Your task to perform on an android device: Open Youtube and go to "Your channel" Image 0: 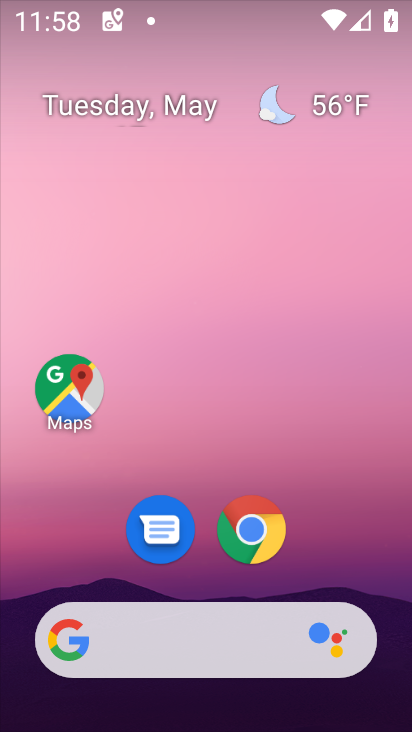
Step 0: click (376, 342)
Your task to perform on an android device: Open Youtube and go to "Your channel" Image 1: 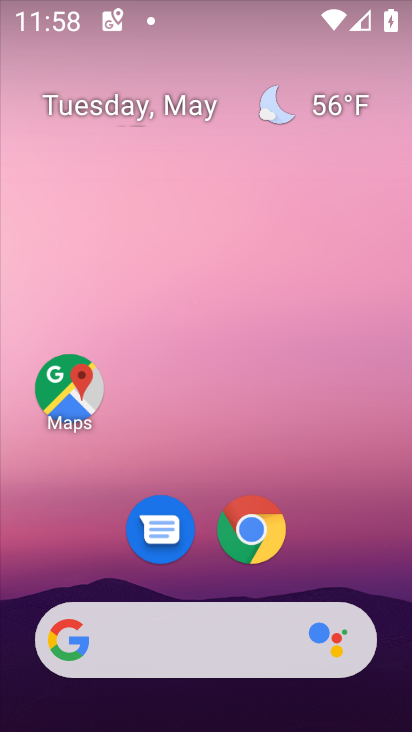
Step 1: drag from (385, 633) to (336, 223)
Your task to perform on an android device: Open Youtube and go to "Your channel" Image 2: 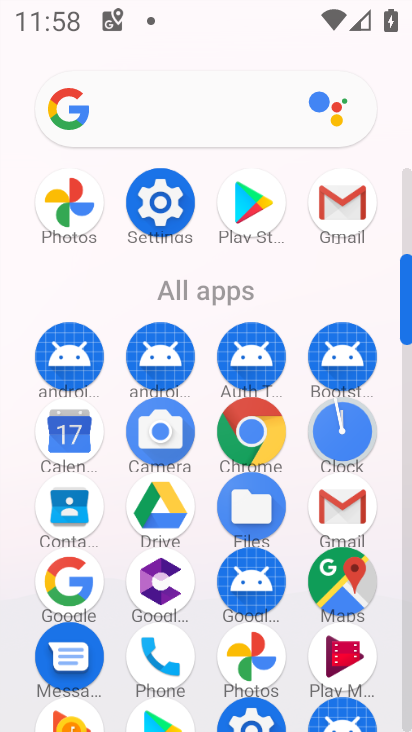
Step 2: drag from (407, 266) to (393, 75)
Your task to perform on an android device: Open Youtube and go to "Your channel" Image 3: 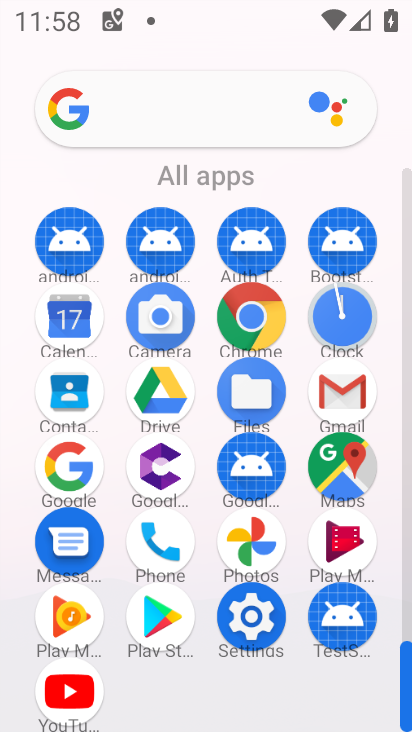
Step 3: click (55, 691)
Your task to perform on an android device: Open Youtube and go to "Your channel" Image 4: 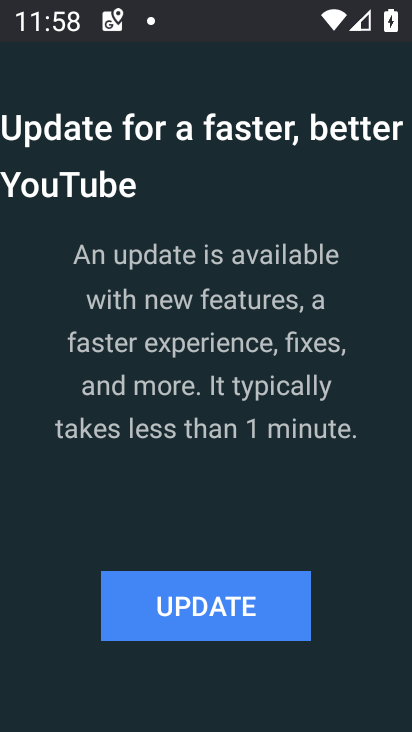
Step 4: click (134, 653)
Your task to perform on an android device: Open Youtube and go to "Your channel" Image 5: 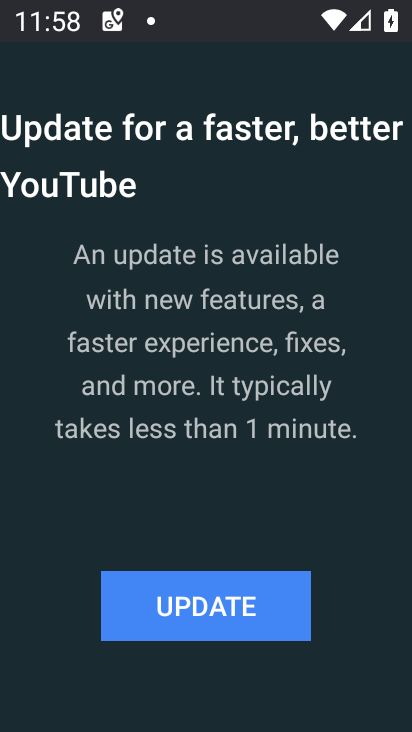
Step 5: click (158, 617)
Your task to perform on an android device: Open Youtube and go to "Your channel" Image 6: 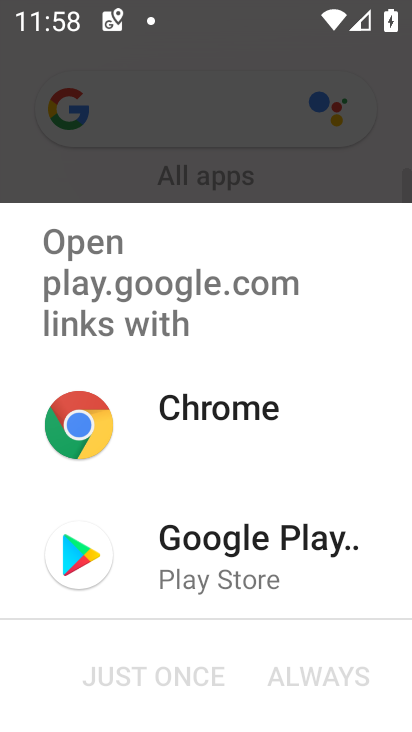
Step 6: click (189, 529)
Your task to perform on an android device: Open Youtube and go to "Your channel" Image 7: 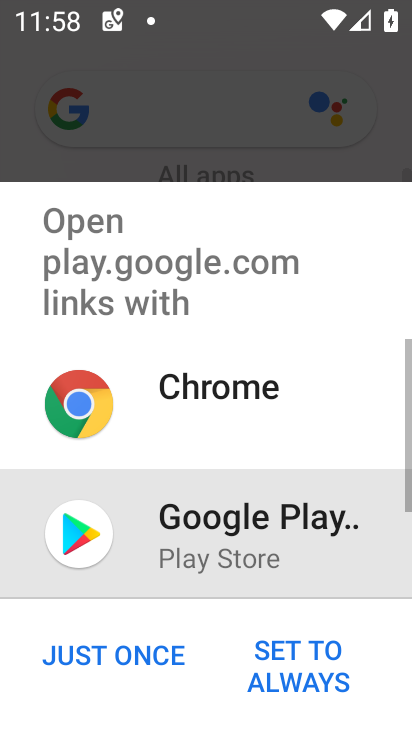
Step 7: click (169, 643)
Your task to perform on an android device: Open Youtube and go to "Your channel" Image 8: 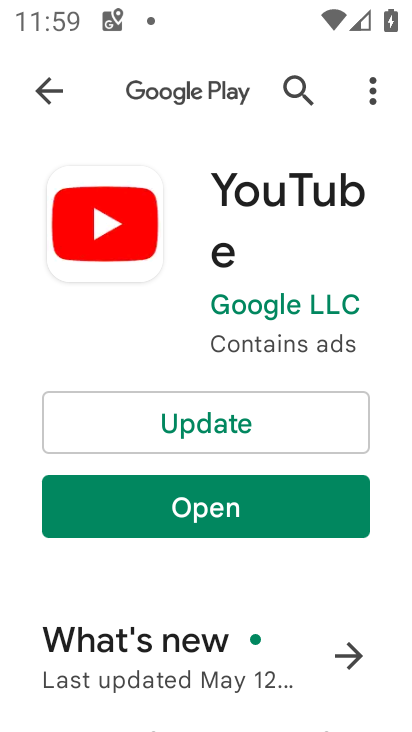
Step 8: click (288, 425)
Your task to perform on an android device: Open Youtube and go to "Your channel" Image 9: 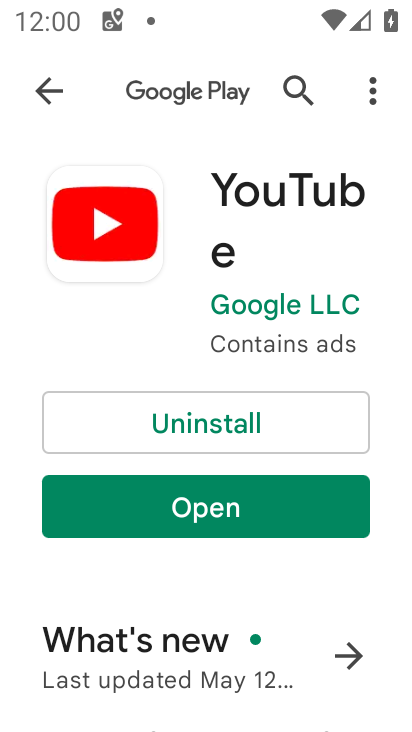
Step 9: click (226, 501)
Your task to perform on an android device: Open Youtube and go to "Your channel" Image 10: 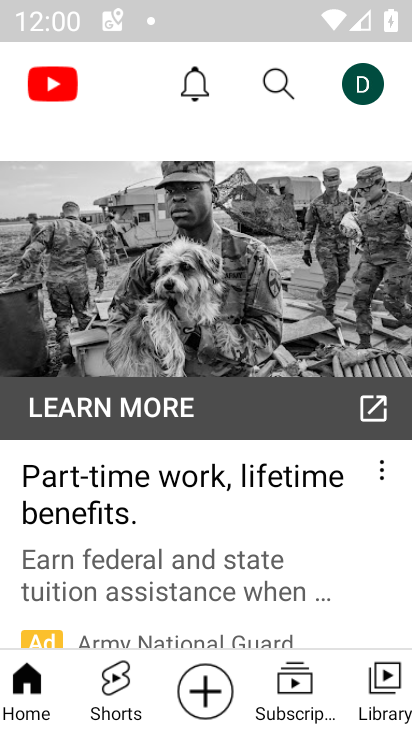
Step 10: click (364, 94)
Your task to perform on an android device: Open Youtube and go to "Your channel" Image 11: 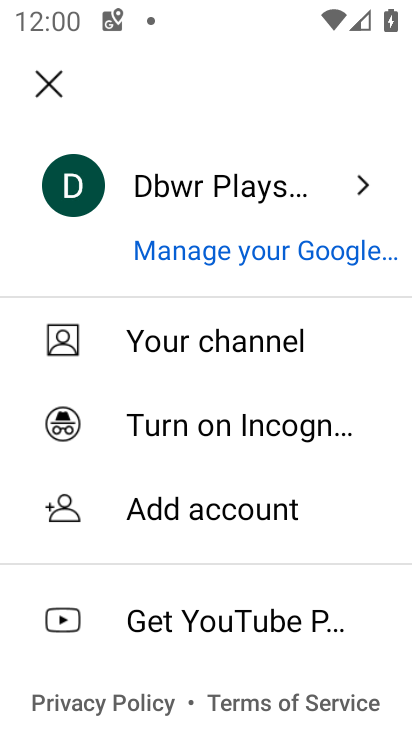
Step 11: click (199, 345)
Your task to perform on an android device: Open Youtube and go to "Your channel" Image 12: 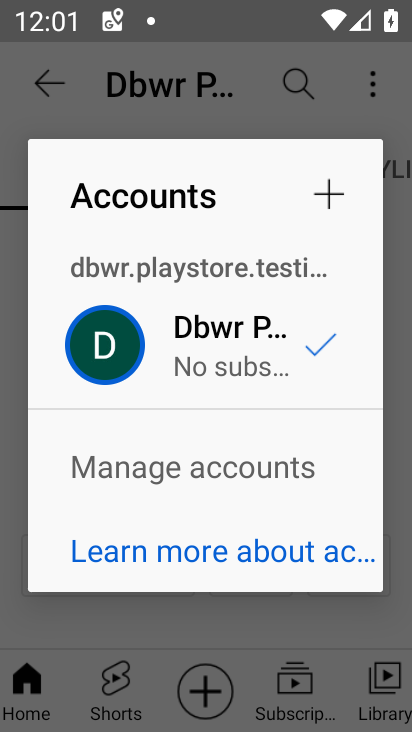
Step 12: press back button
Your task to perform on an android device: Open Youtube and go to "Your channel" Image 13: 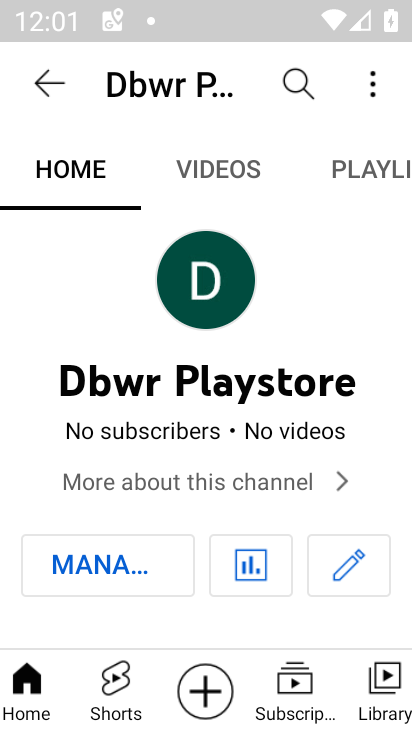
Step 13: click (375, 73)
Your task to perform on an android device: Open Youtube and go to "Your channel" Image 14: 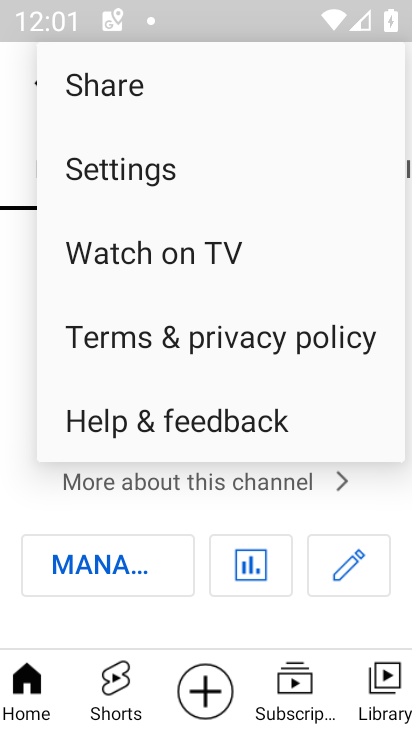
Step 14: click (13, 302)
Your task to perform on an android device: Open Youtube and go to "Your channel" Image 15: 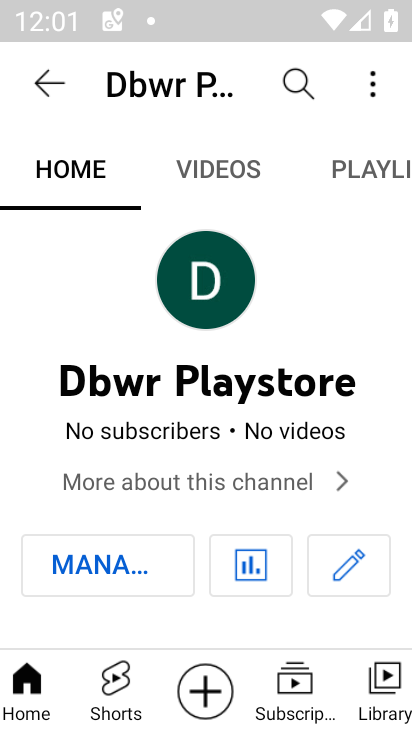
Step 15: task complete